Your task to perform on an android device: set an alarm Image 0: 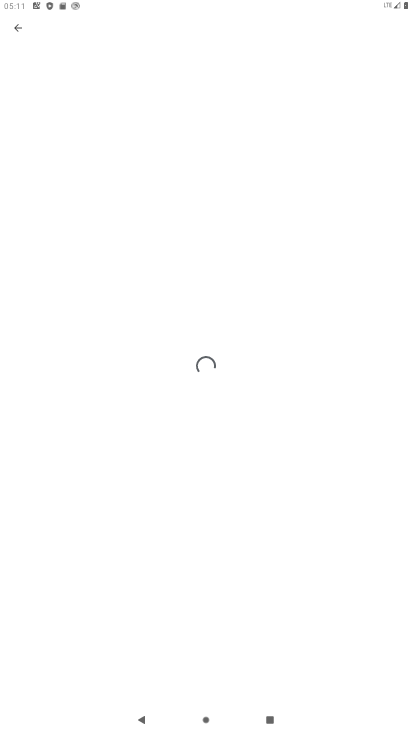
Step 0: click (262, 701)
Your task to perform on an android device: set an alarm Image 1: 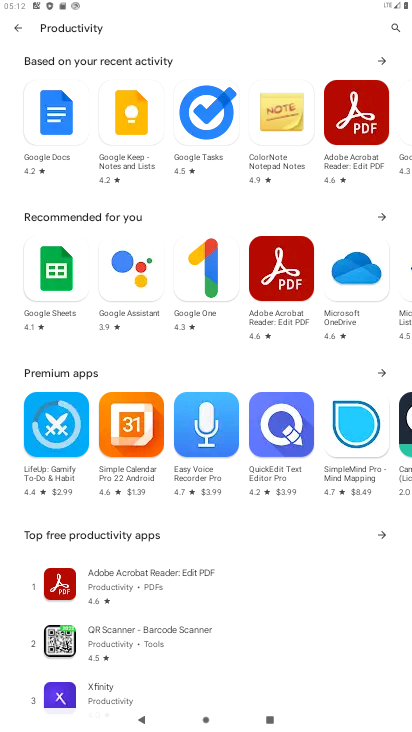
Step 1: press home button
Your task to perform on an android device: set an alarm Image 2: 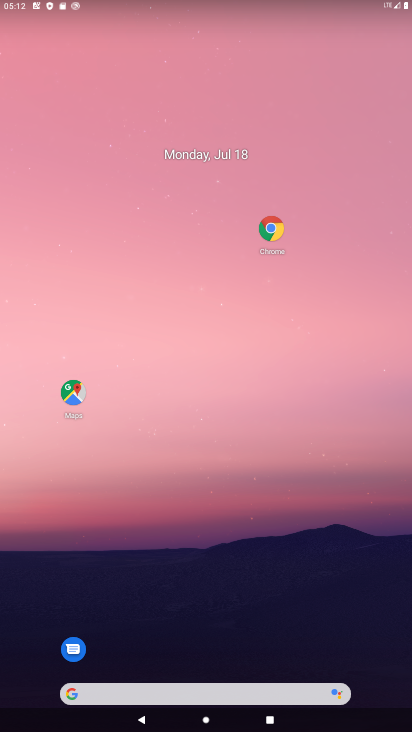
Step 2: drag from (162, 658) to (178, 78)
Your task to perform on an android device: set an alarm Image 3: 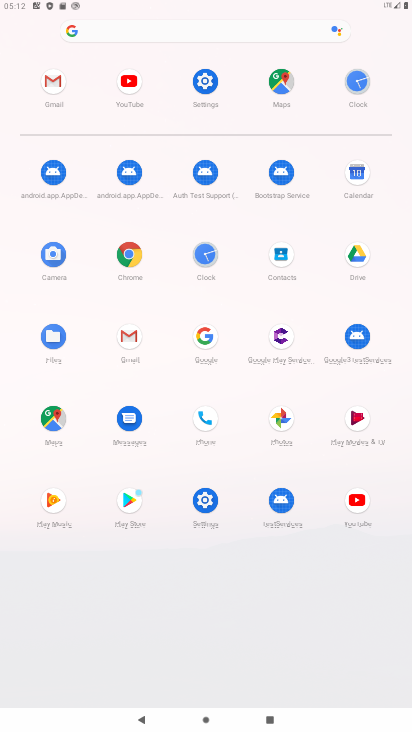
Step 3: click (207, 264)
Your task to perform on an android device: set an alarm Image 4: 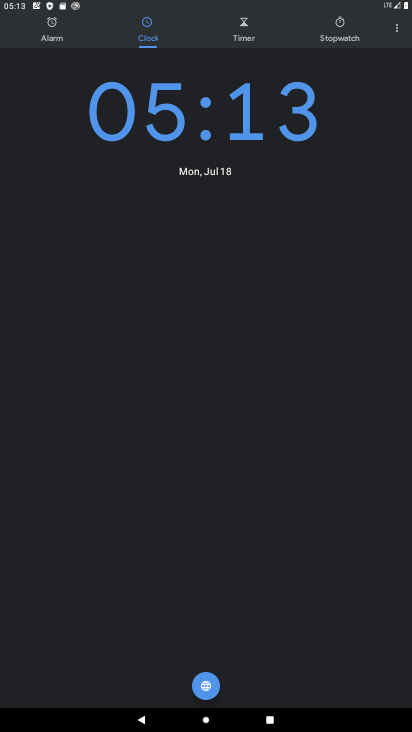
Step 4: click (39, 8)
Your task to perform on an android device: set an alarm Image 5: 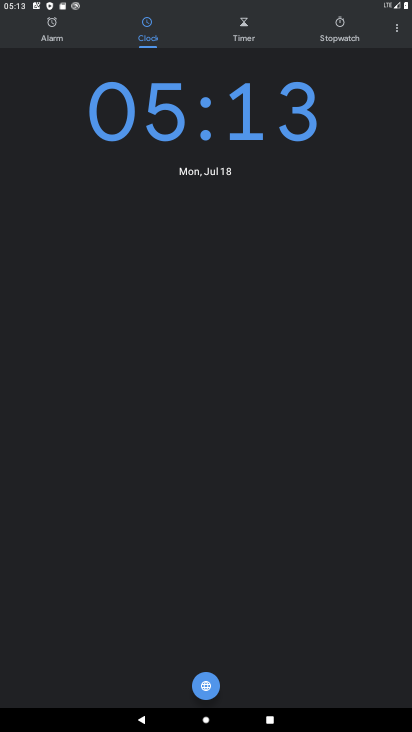
Step 5: click (66, 42)
Your task to perform on an android device: set an alarm Image 6: 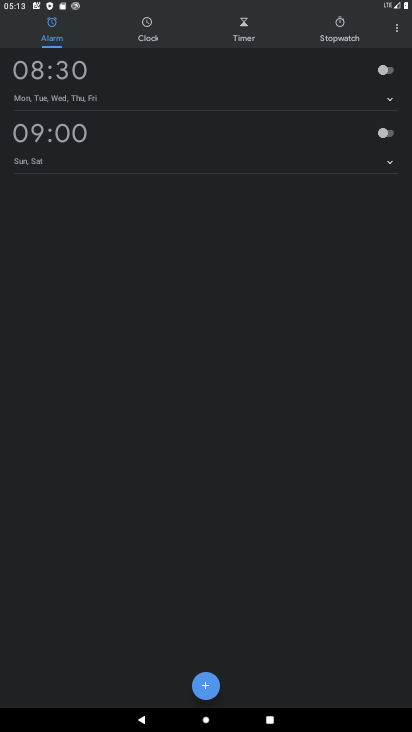
Step 6: click (386, 139)
Your task to perform on an android device: set an alarm Image 7: 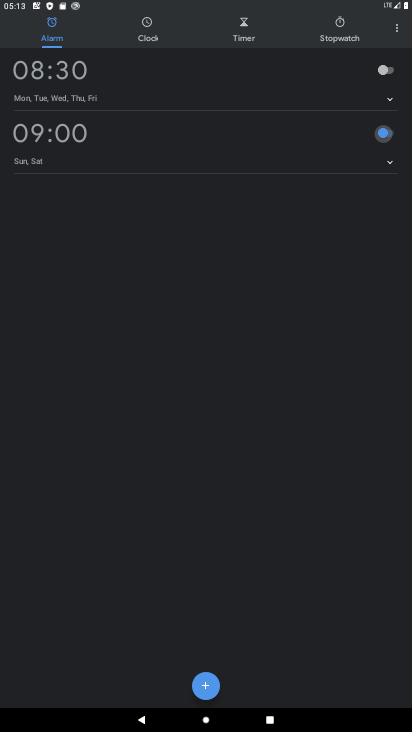
Step 7: click (386, 139)
Your task to perform on an android device: set an alarm Image 8: 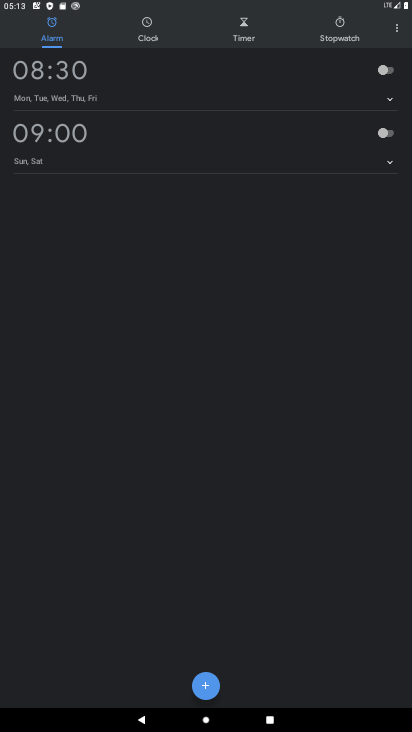
Step 8: click (386, 139)
Your task to perform on an android device: set an alarm Image 9: 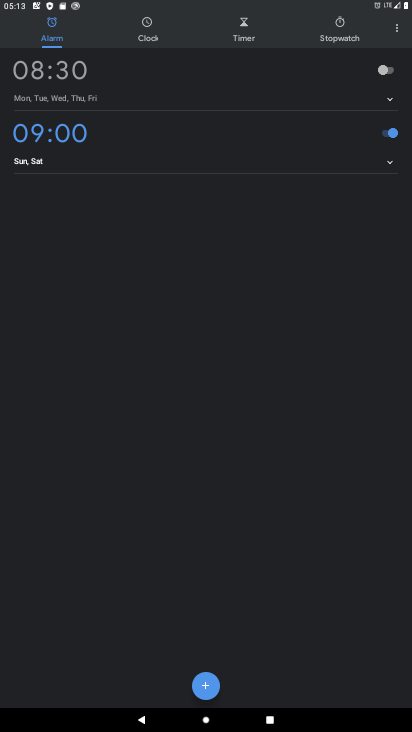
Step 9: task complete